Your task to perform on an android device: change keyboard looks Image 0: 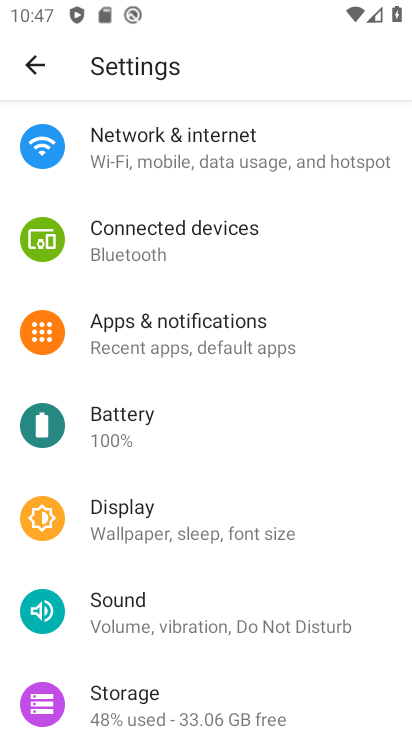
Step 0: drag from (167, 664) to (262, 73)
Your task to perform on an android device: change keyboard looks Image 1: 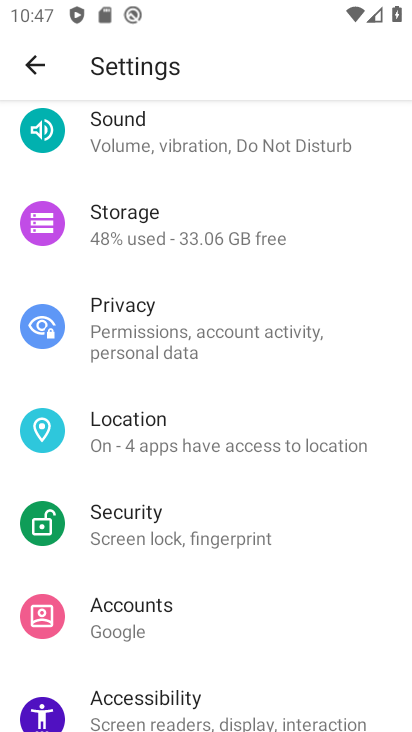
Step 1: drag from (200, 602) to (315, 103)
Your task to perform on an android device: change keyboard looks Image 2: 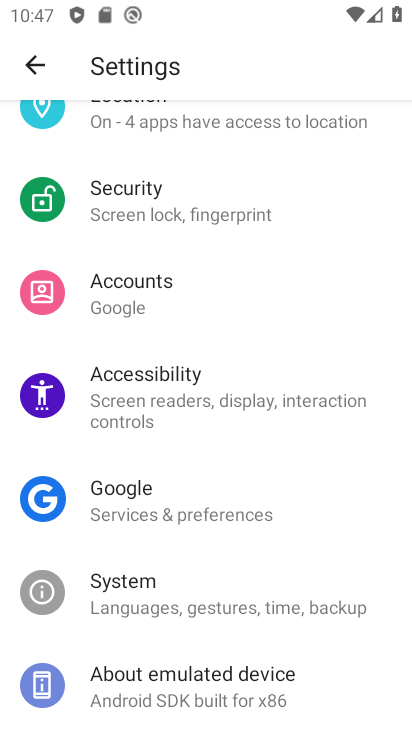
Step 2: click (154, 613)
Your task to perform on an android device: change keyboard looks Image 3: 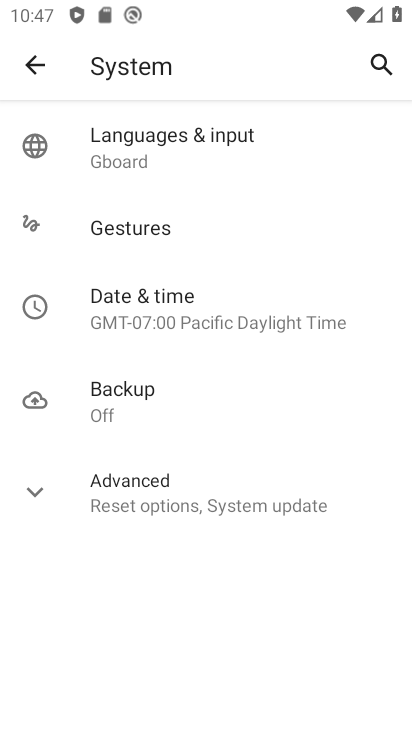
Step 3: click (206, 149)
Your task to perform on an android device: change keyboard looks Image 4: 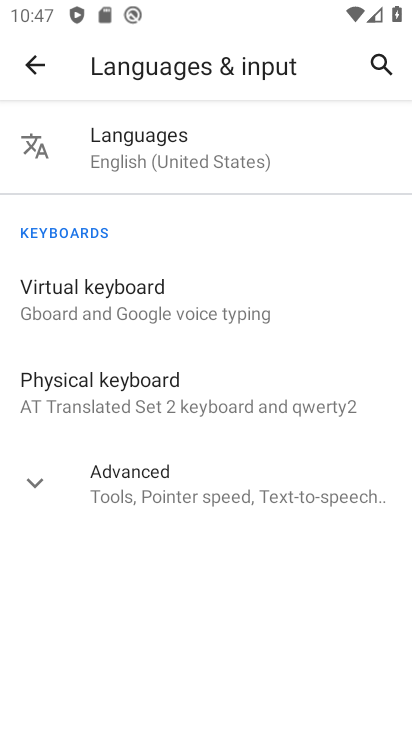
Step 4: click (112, 301)
Your task to perform on an android device: change keyboard looks Image 5: 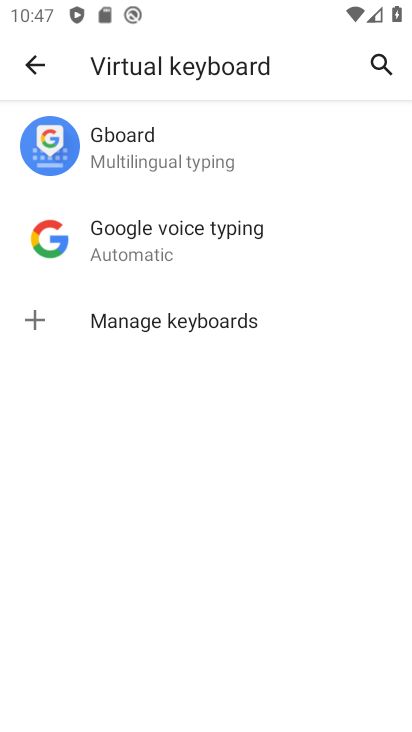
Step 5: click (155, 126)
Your task to perform on an android device: change keyboard looks Image 6: 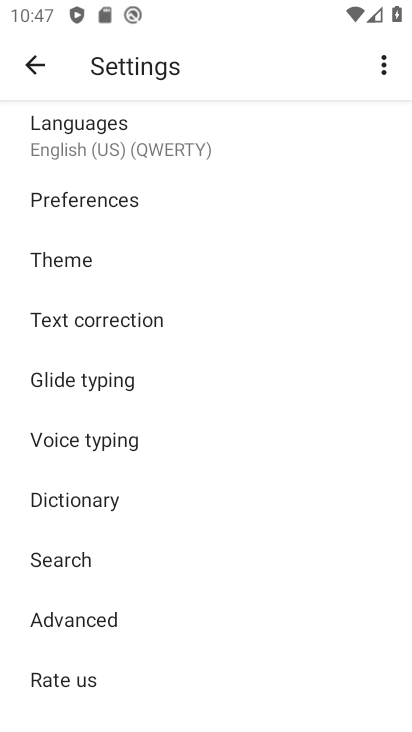
Step 6: click (131, 258)
Your task to perform on an android device: change keyboard looks Image 7: 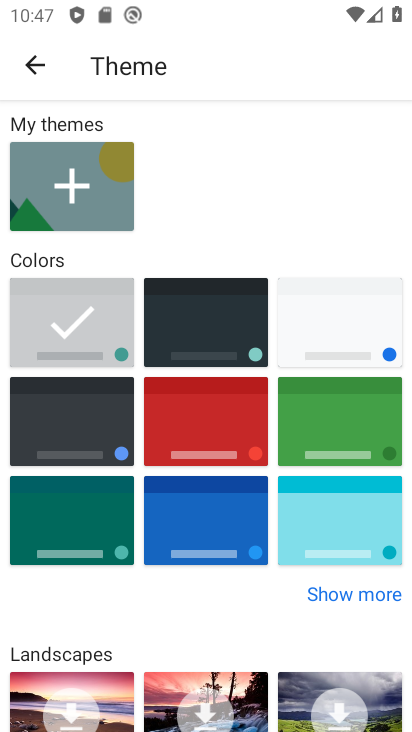
Step 7: click (197, 441)
Your task to perform on an android device: change keyboard looks Image 8: 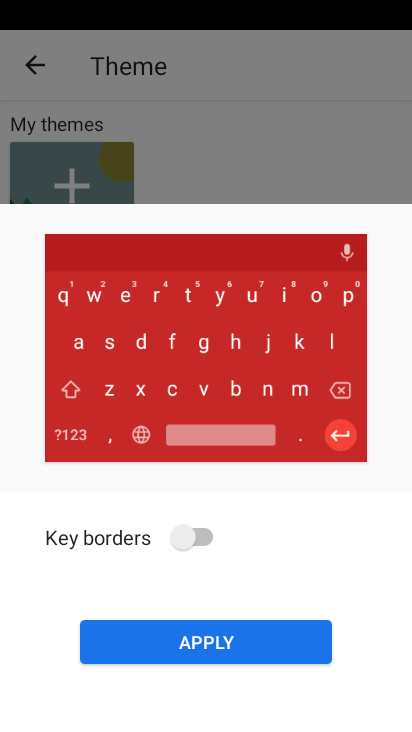
Step 8: click (186, 644)
Your task to perform on an android device: change keyboard looks Image 9: 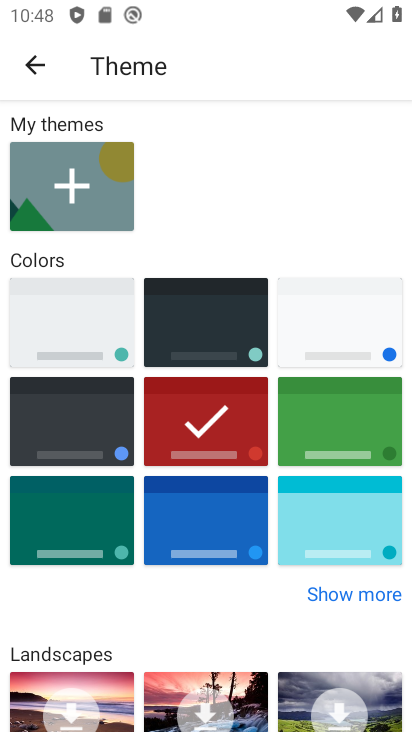
Step 9: task complete